Your task to perform on an android device: check google app version Image 0: 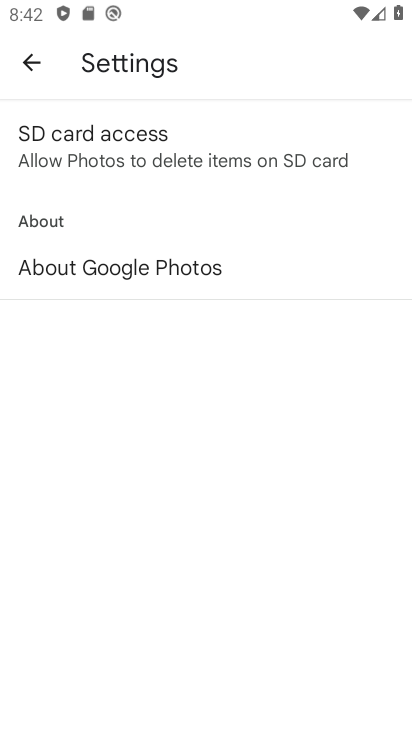
Step 0: press home button
Your task to perform on an android device: check google app version Image 1: 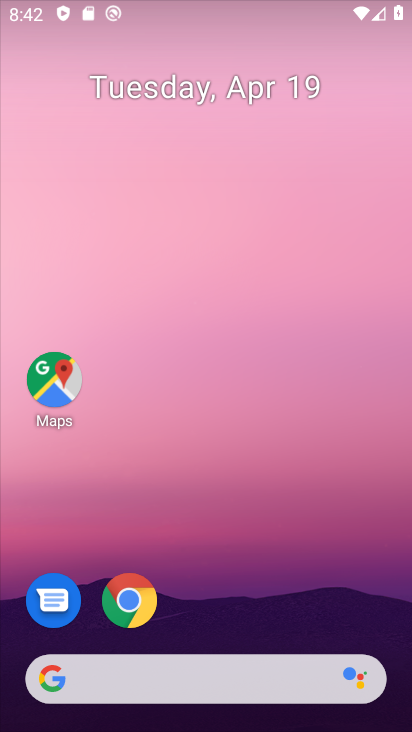
Step 1: drag from (266, 622) to (252, 59)
Your task to perform on an android device: check google app version Image 2: 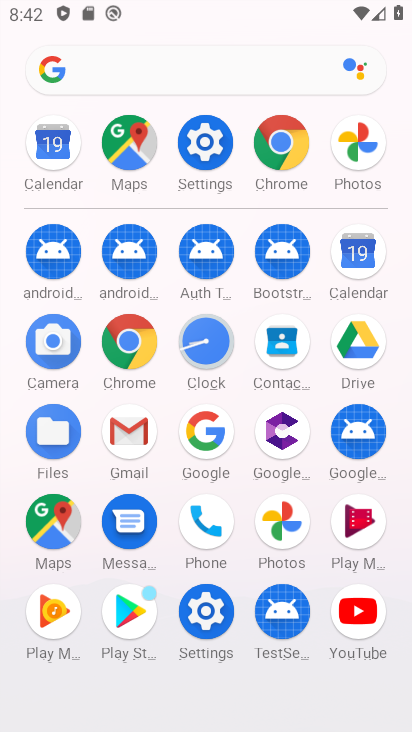
Step 2: click (186, 433)
Your task to perform on an android device: check google app version Image 3: 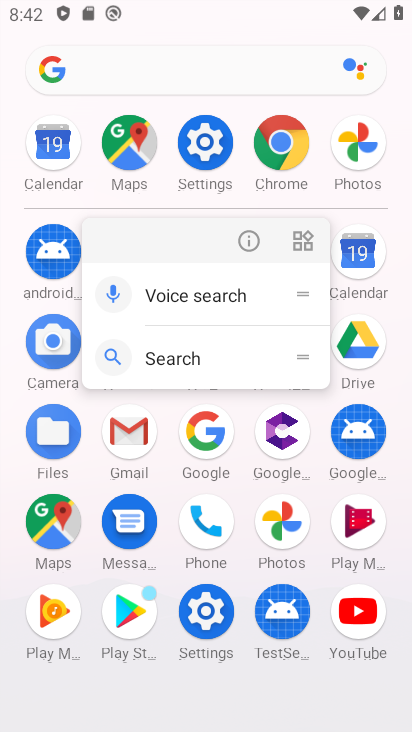
Step 3: click (255, 246)
Your task to perform on an android device: check google app version Image 4: 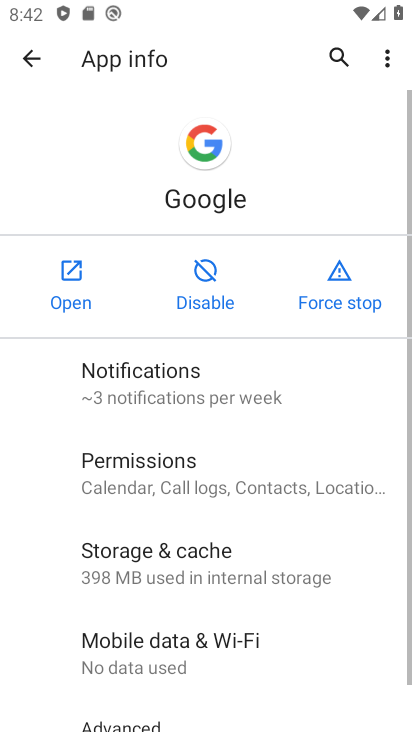
Step 4: drag from (153, 682) to (185, 68)
Your task to perform on an android device: check google app version Image 5: 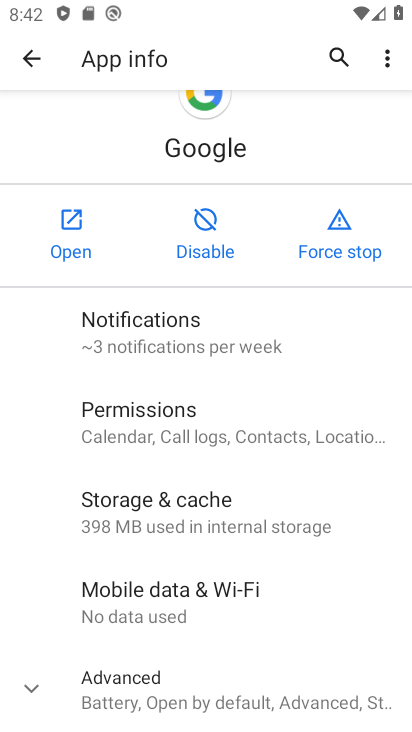
Step 5: click (34, 693)
Your task to perform on an android device: check google app version Image 6: 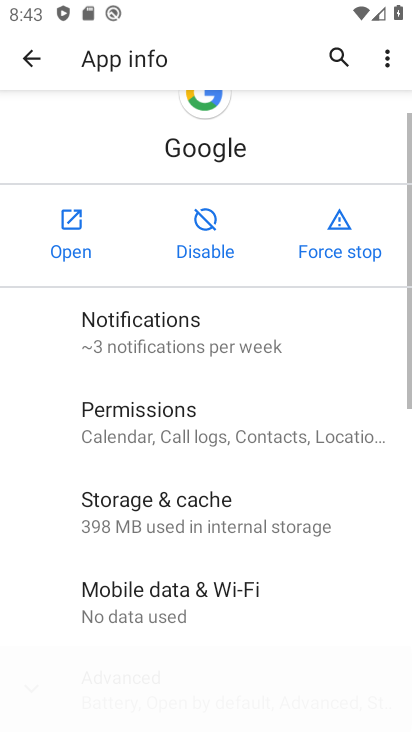
Step 6: task complete